Your task to perform on an android device: open device folders in google photos Image 0: 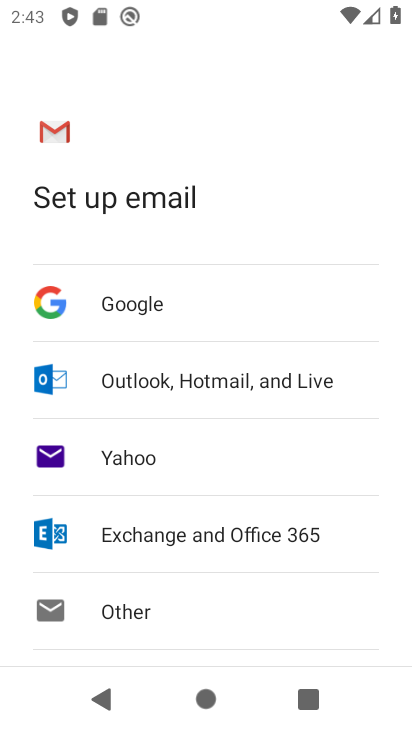
Step 0: press home button
Your task to perform on an android device: open device folders in google photos Image 1: 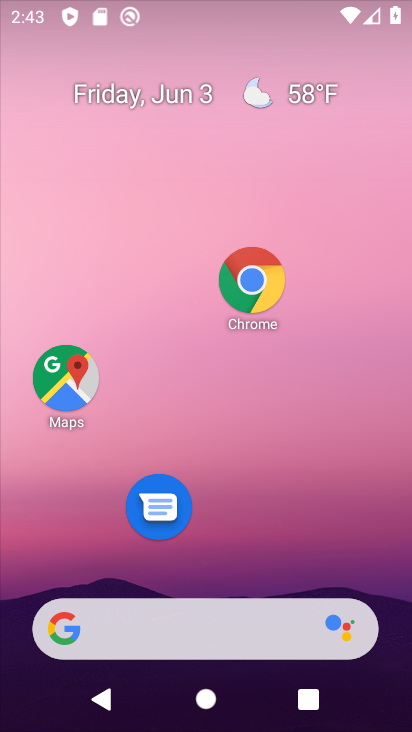
Step 1: drag from (251, 558) to (281, 81)
Your task to perform on an android device: open device folders in google photos Image 2: 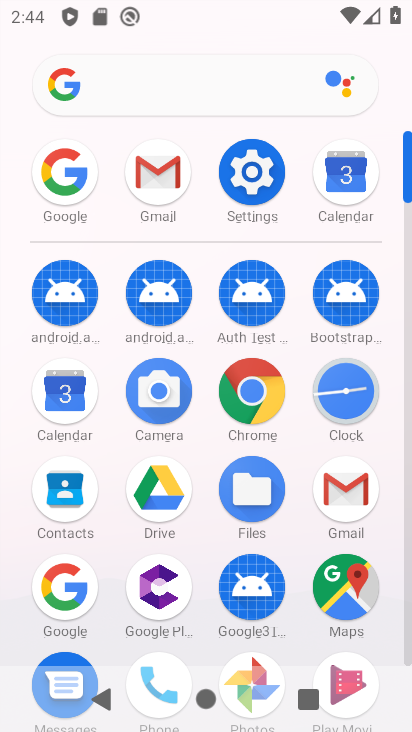
Step 2: drag from (198, 544) to (212, 287)
Your task to perform on an android device: open device folders in google photos Image 3: 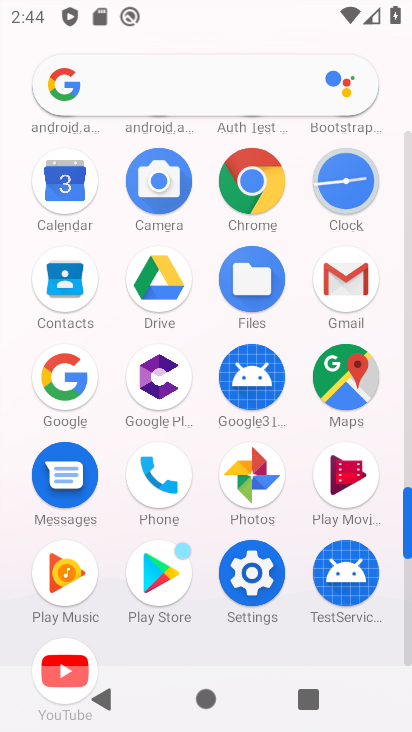
Step 3: click (255, 485)
Your task to perform on an android device: open device folders in google photos Image 4: 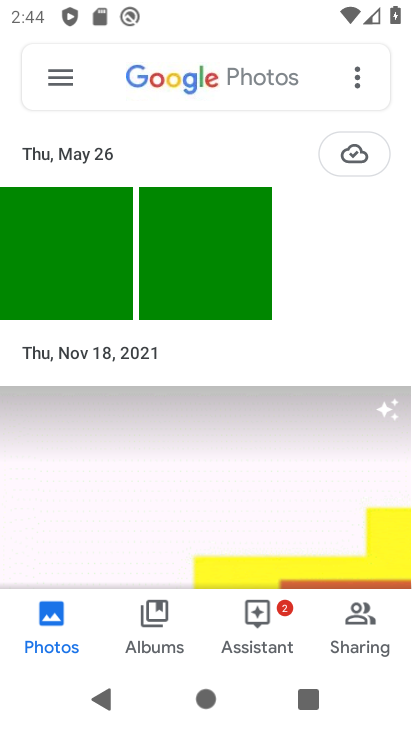
Step 4: click (56, 83)
Your task to perform on an android device: open device folders in google photos Image 5: 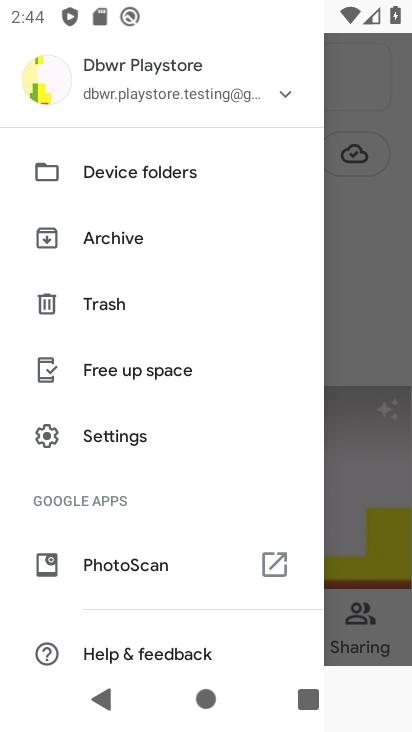
Step 5: click (125, 189)
Your task to perform on an android device: open device folders in google photos Image 6: 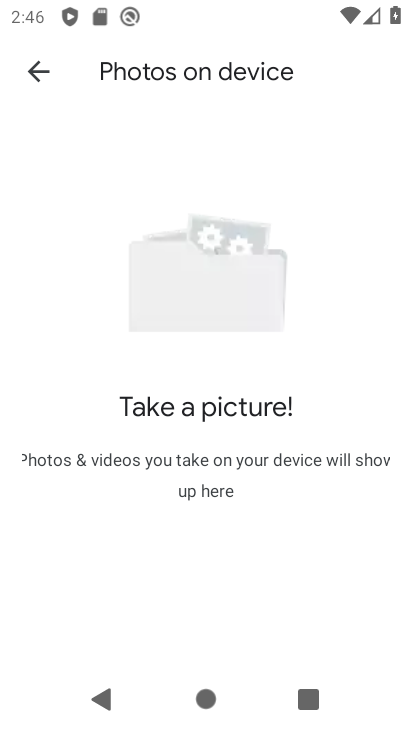
Step 6: task complete